Your task to perform on an android device: Go to ESPN.com Image 0: 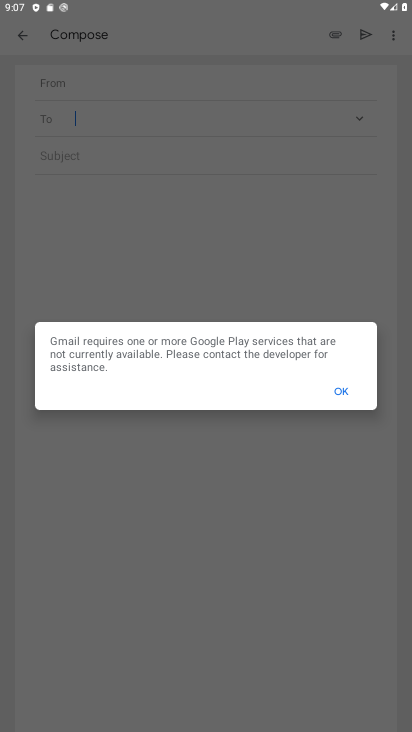
Step 0: press home button
Your task to perform on an android device: Go to ESPN.com Image 1: 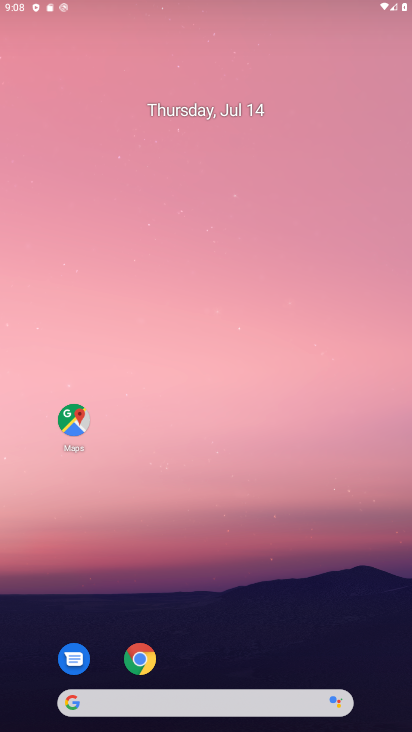
Step 1: drag from (179, 642) to (257, 117)
Your task to perform on an android device: Go to ESPN.com Image 2: 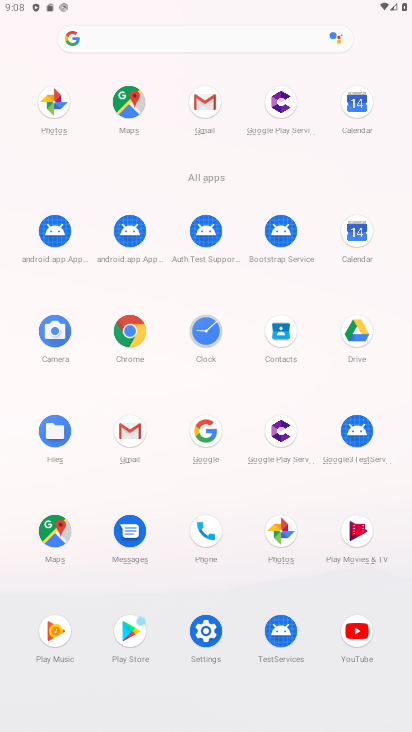
Step 2: click (138, 319)
Your task to perform on an android device: Go to ESPN.com Image 3: 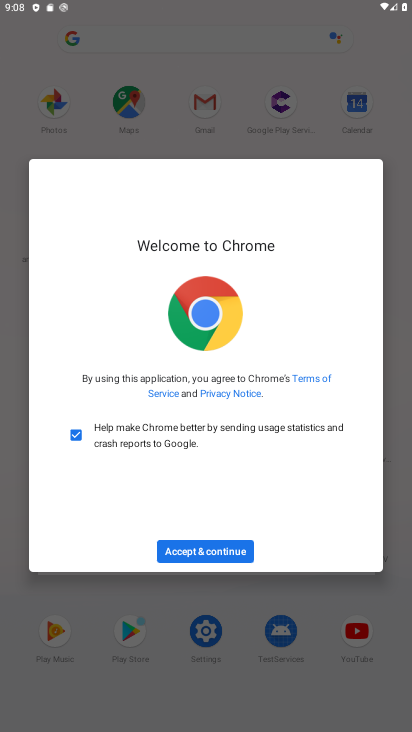
Step 3: click (176, 556)
Your task to perform on an android device: Go to ESPN.com Image 4: 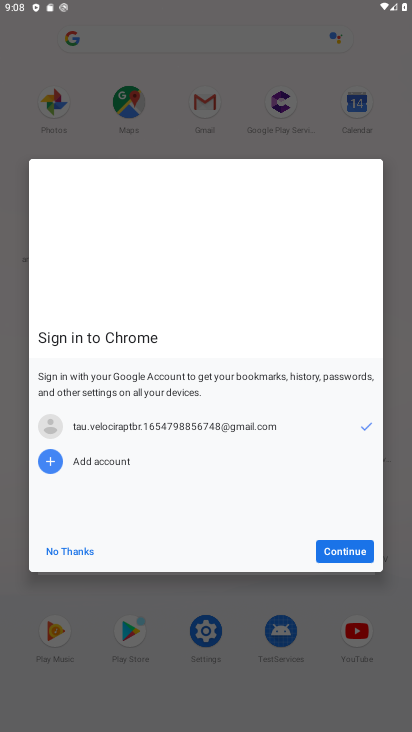
Step 4: click (61, 546)
Your task to perform on an android device: Go to ESPN.com Image 5: 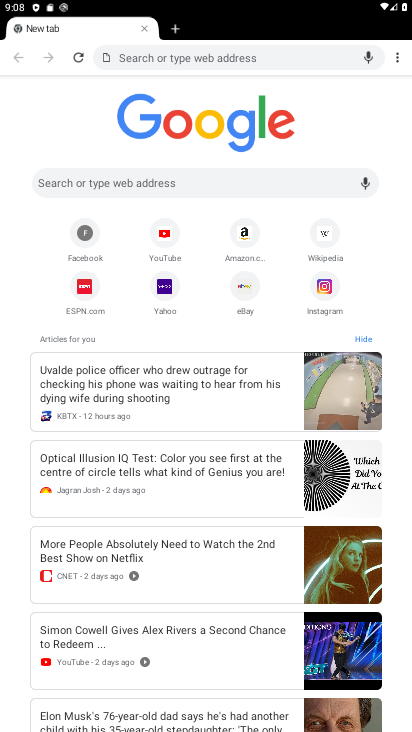
Step 5: click (87, 299)
Your task to perform on an android device: Go to ESPN.com Image 6: 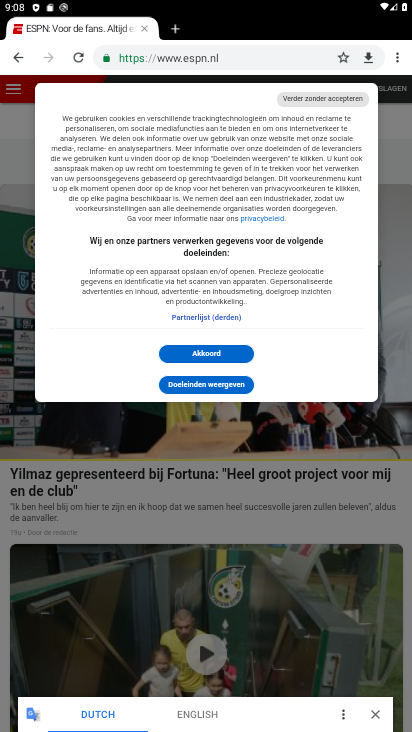
Step 6: task complete